Your task to perform on an android device: Go to Wikipedia Image 0: 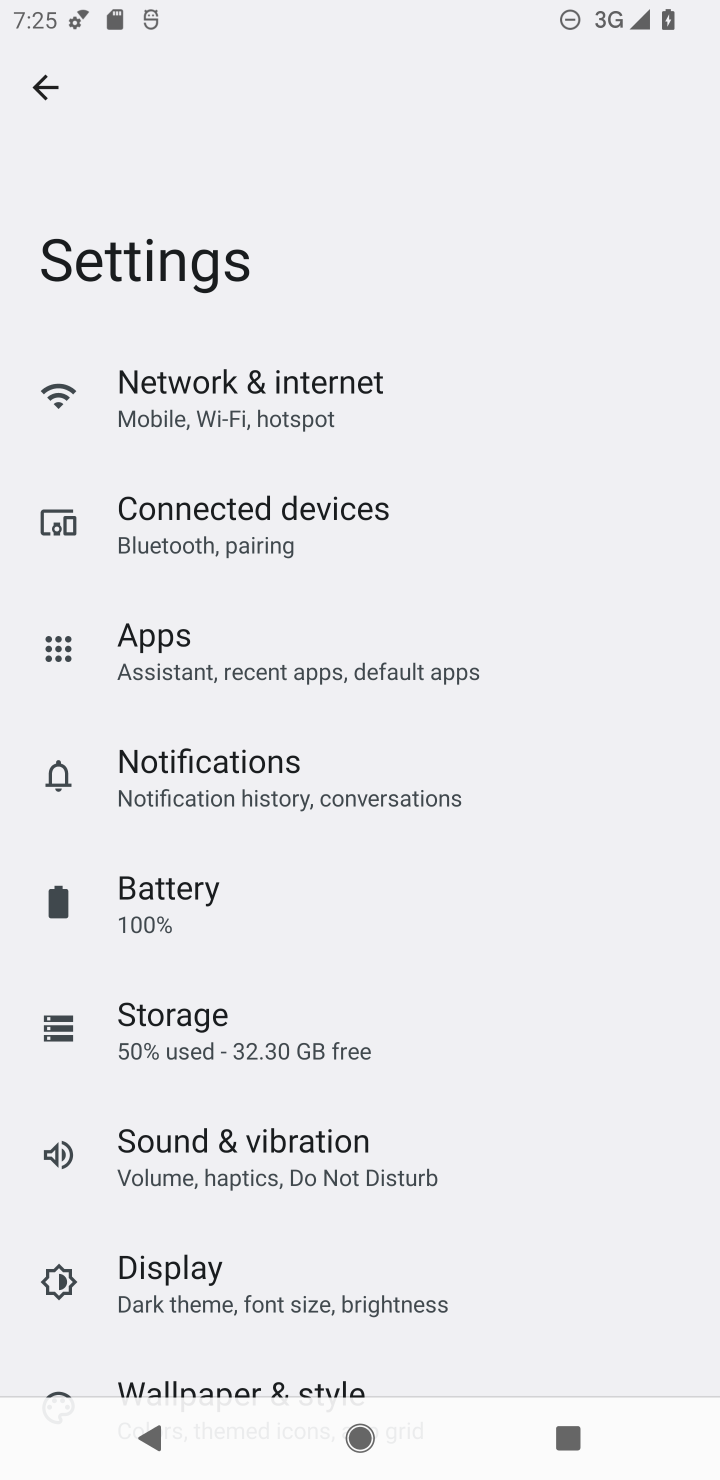
Step 0: press home button
Your task to perform on an android device: Go to Wikipedia Image 1: 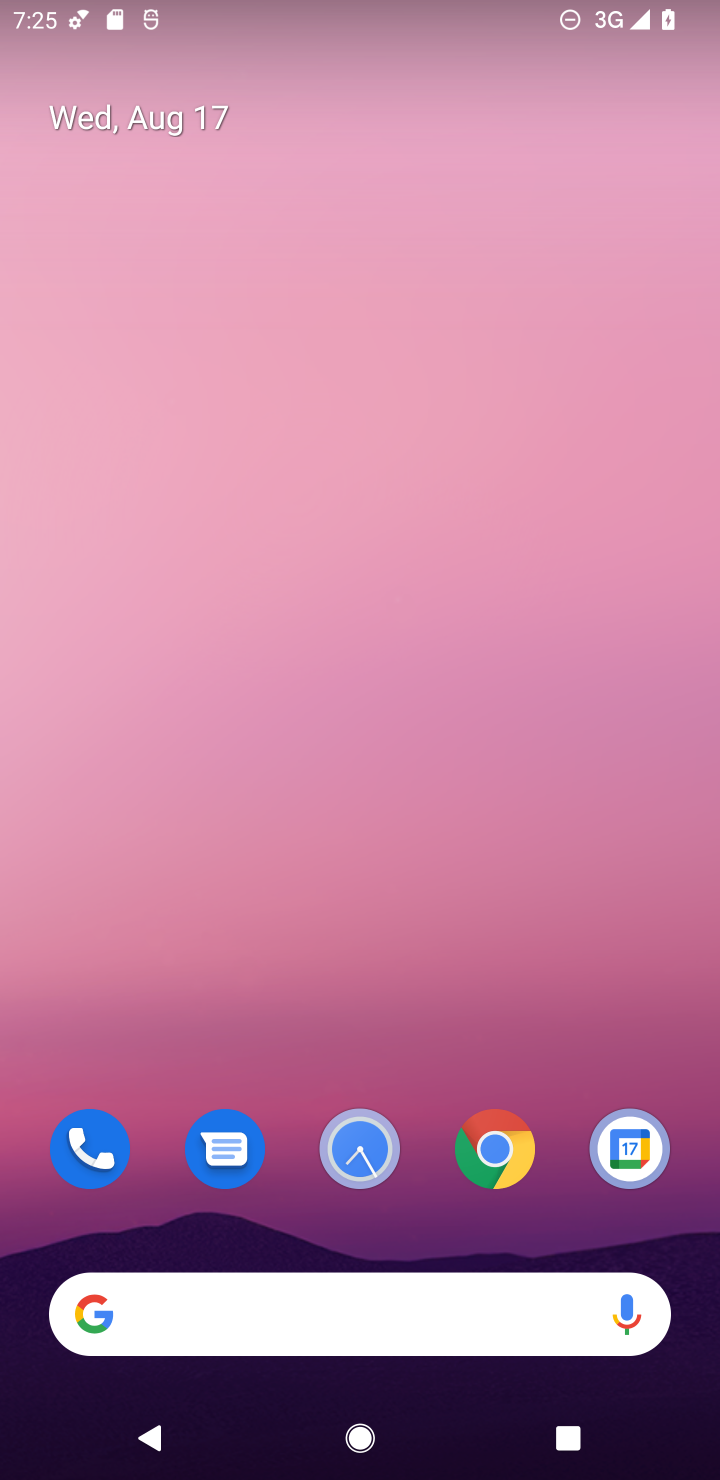
Step 1: click (495, 1144)
Your task to perform on an android device: Go to Wikipedia Image 2: 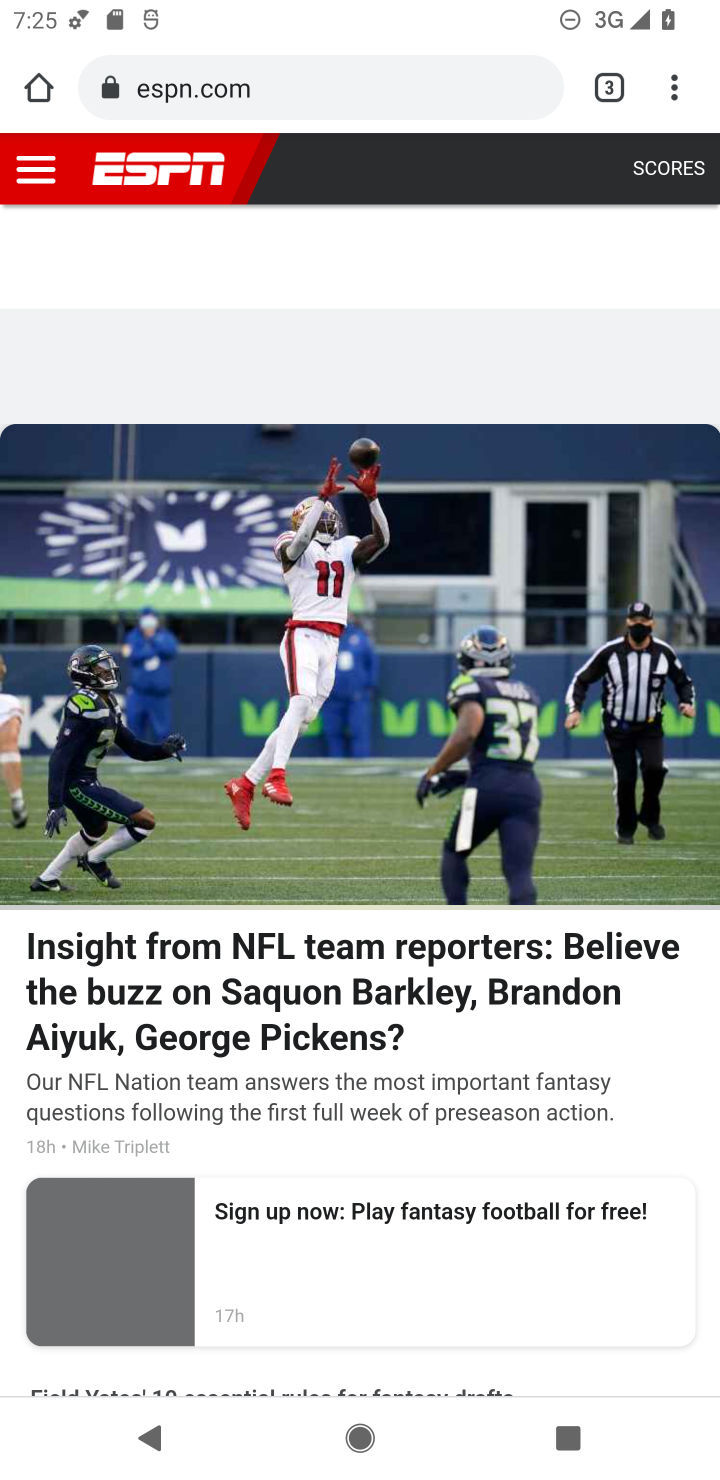
Step 2: click (675, 80)
Your task to perform on an android device: Go to Wikipedia Image 3: 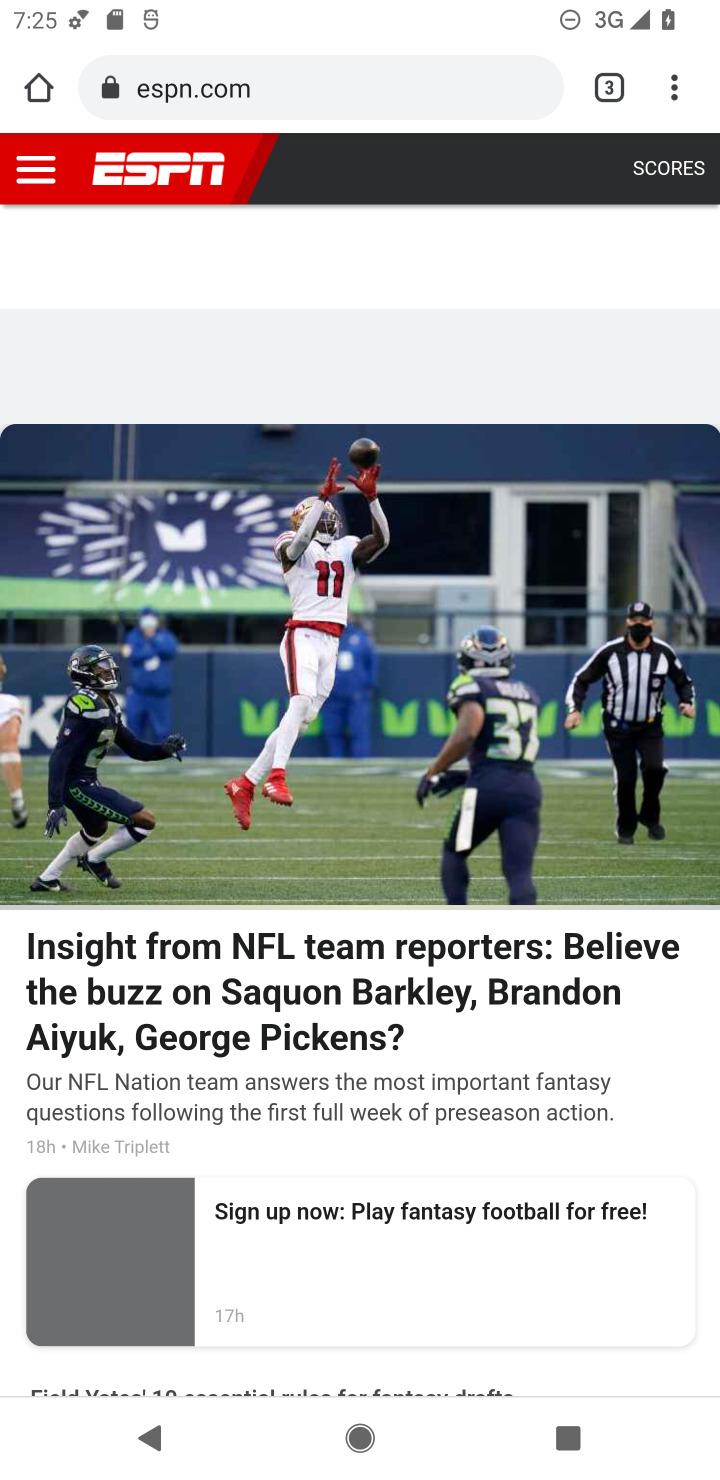
Step 3: click (636, 63)
Your task to perform on an android device: Go to Wikipedia Image 4: 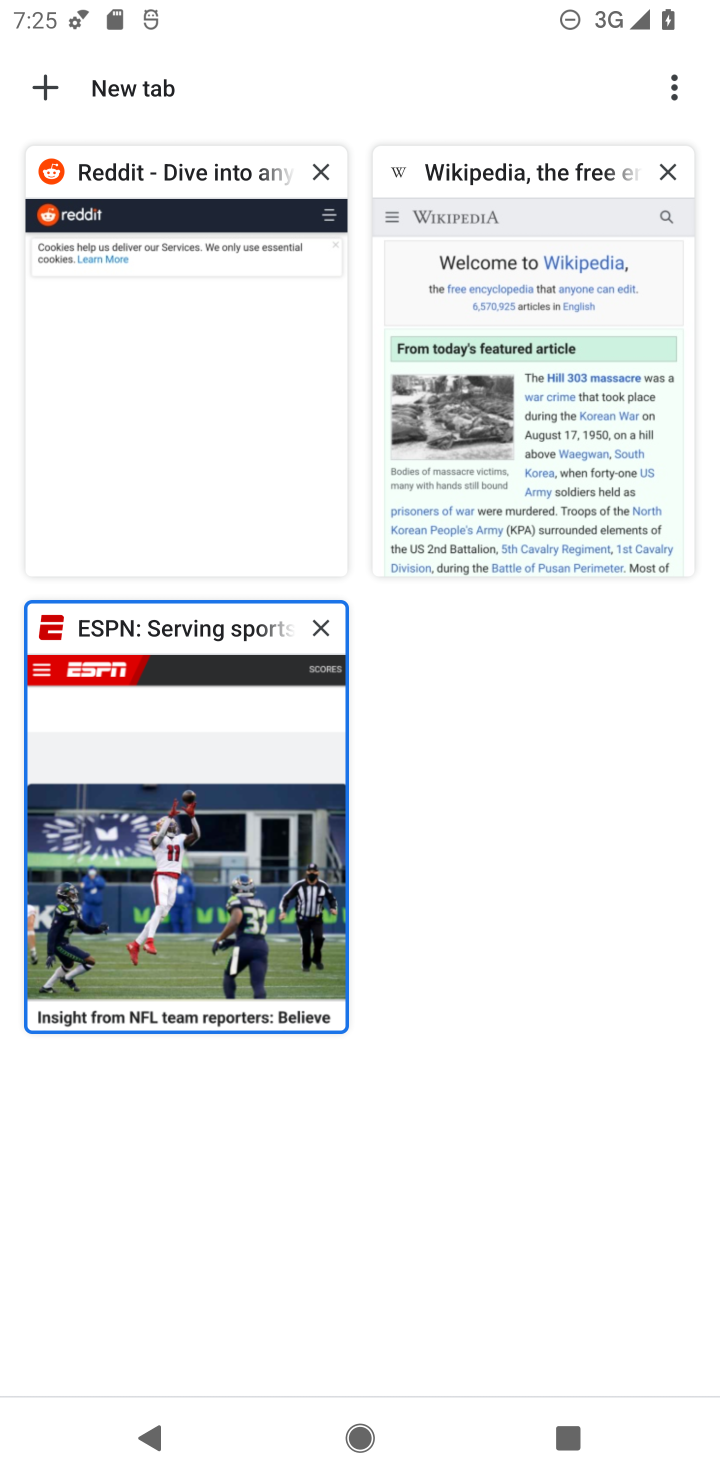
Step 4: click (48, 83)
Your task to perform on an android device: Go to Wikipedia Image 5: 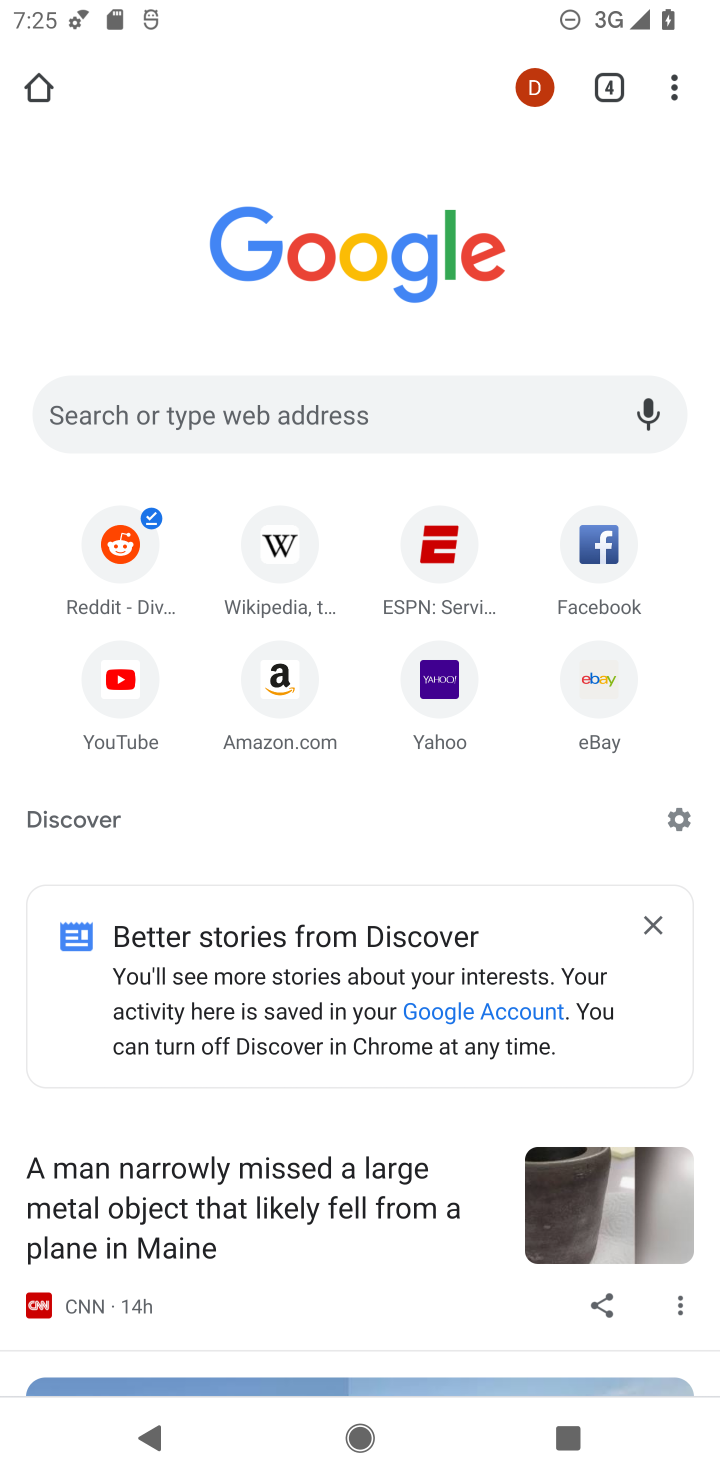
Step 5: click (271, 550)
Your task to perform on an android device: Go to Wikipedia Image 6: 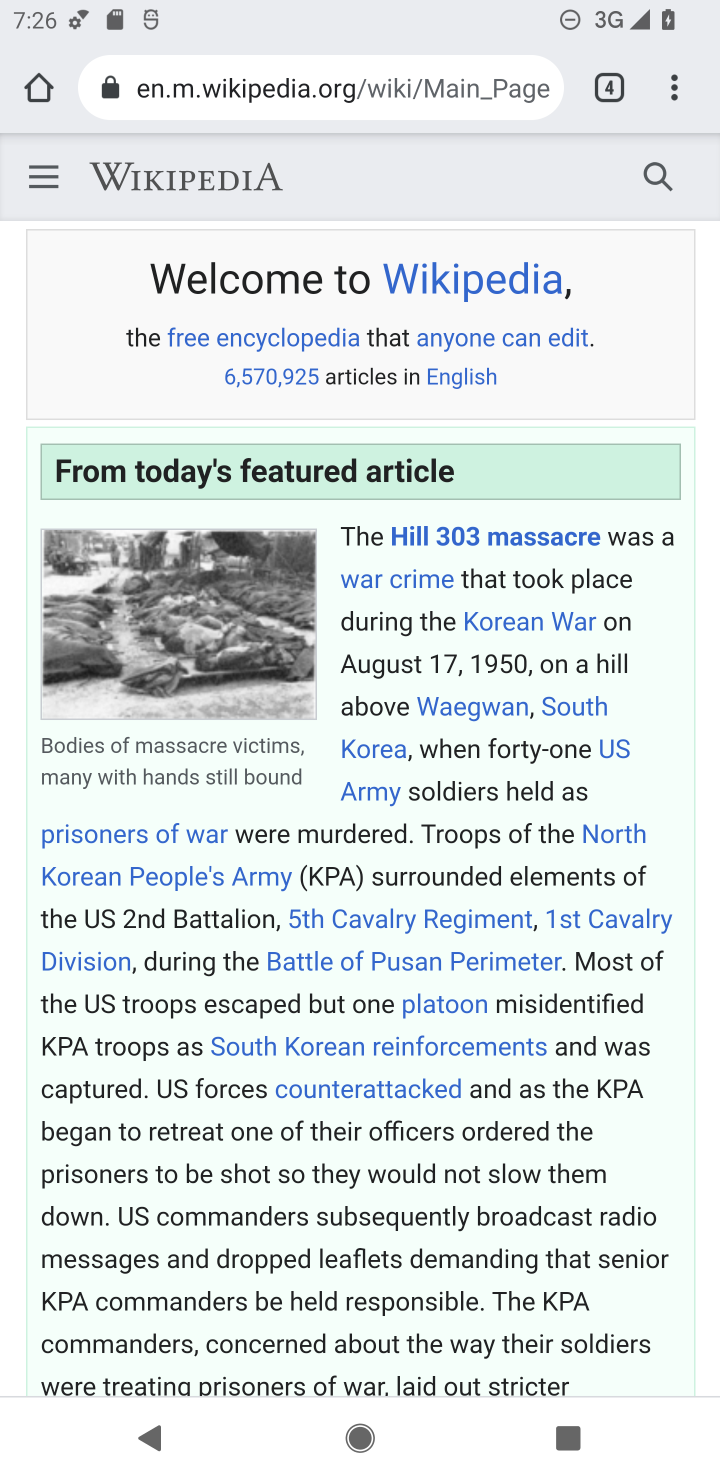
Step 6: task complete